Your task to perform on an android device: What's on the menu at Chick-fil-A? Image 0: 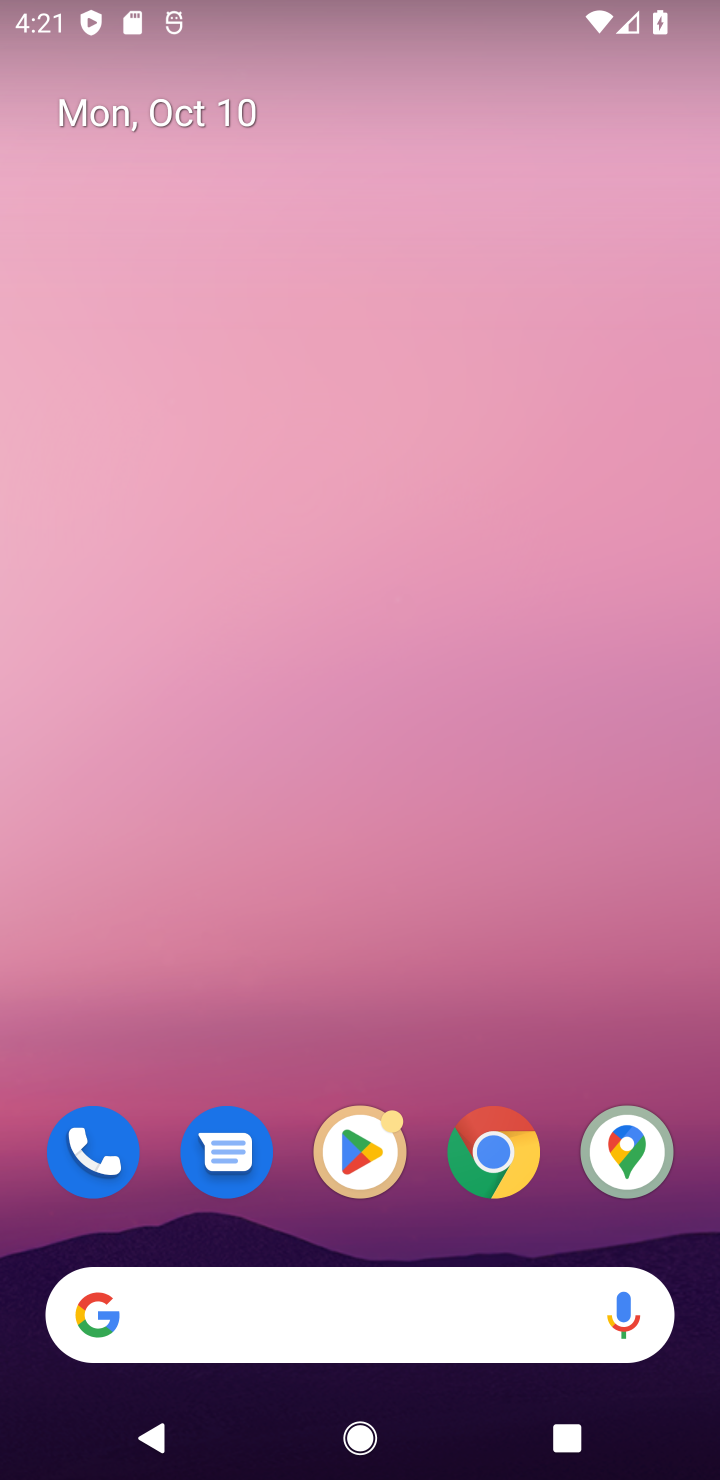
Step 0: click (498, 1154)
Your task to perform on an android device: What's on the menu at Chick-fil-A? Image 1: 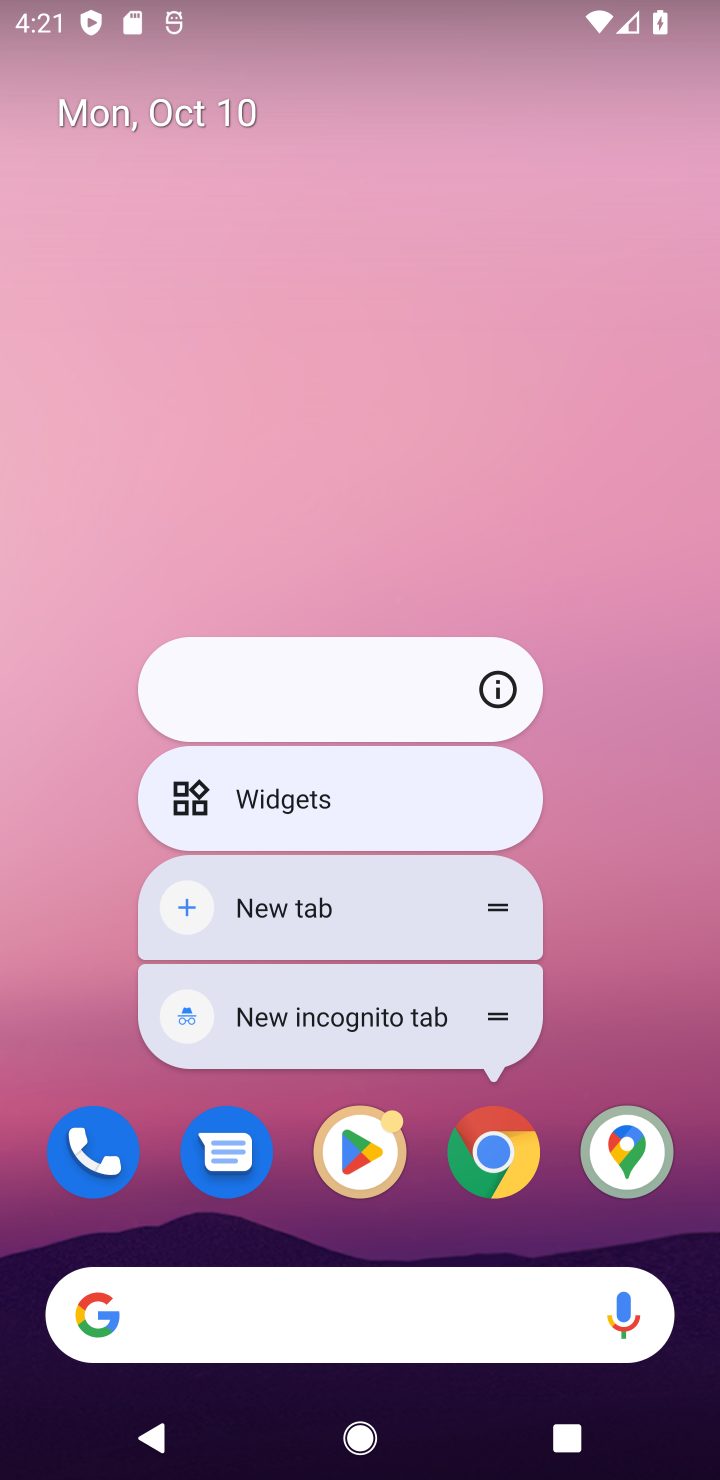
Step 1: click (493, 1152)
Your task to perform on an android device: What's on the menu at Chick-fil-A? Image 2: 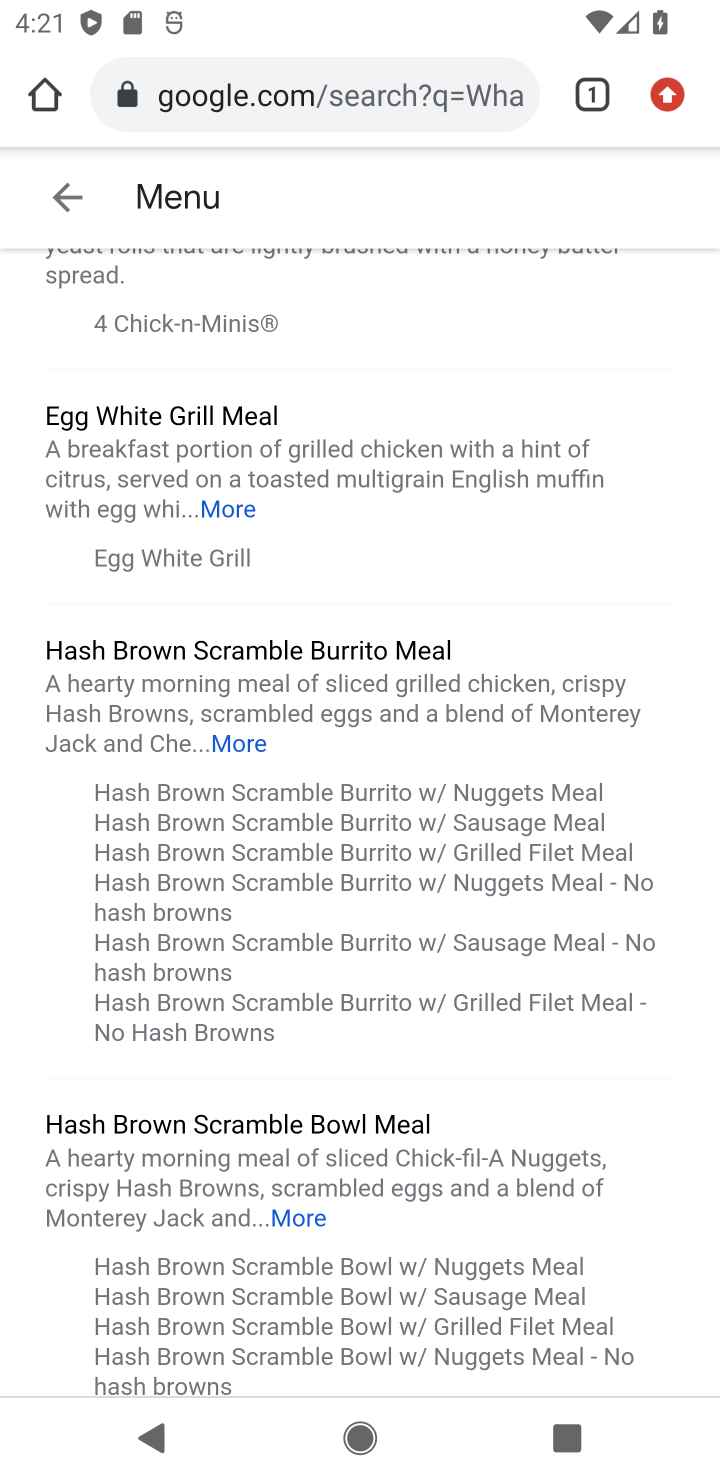
Step 2: task complete